Your task to perform on an android device: set an alarm Image 0: 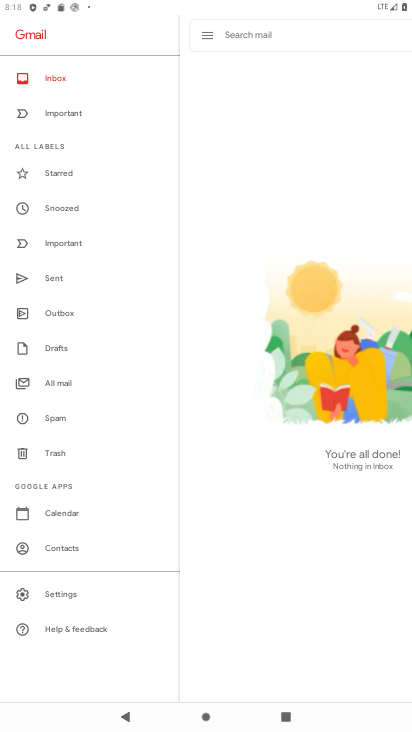
Step 0: press home button
Your task to perform on an android device: set an alarm Image 1: 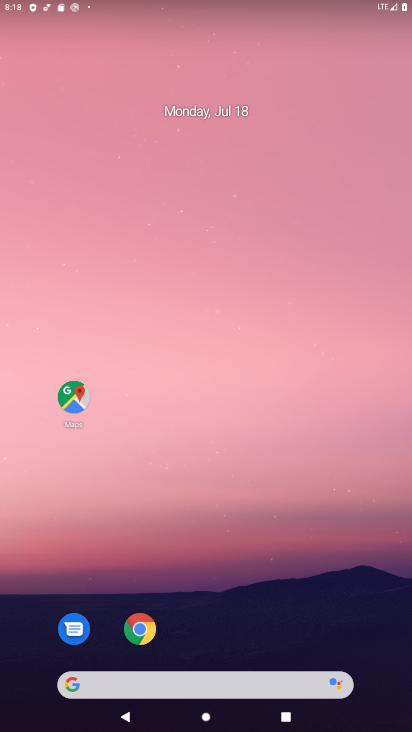
Step 1: drag from (195, 601) to (145, 16)
Your task to perform on an android device: set an alarm Image 2: 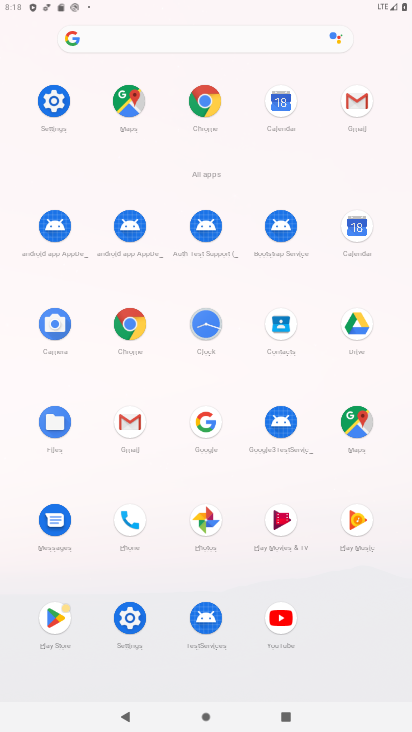
Step 2: click (191, 343)
Your task to perform on an android device: set an alarm Image 3: 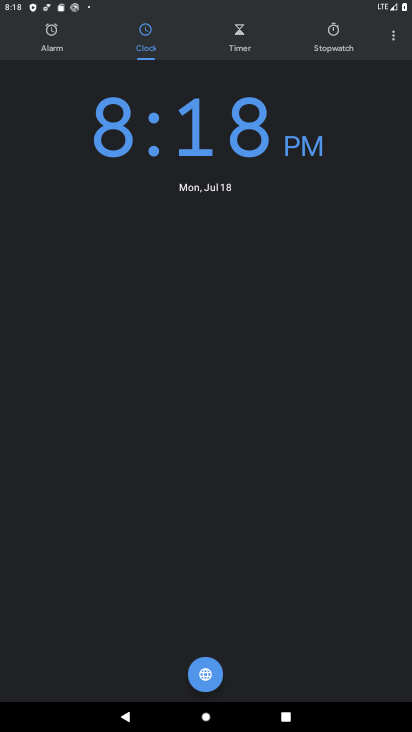
Step 3: click (44, 39)
Your task to perform on an android device: set an alarm Image 4: 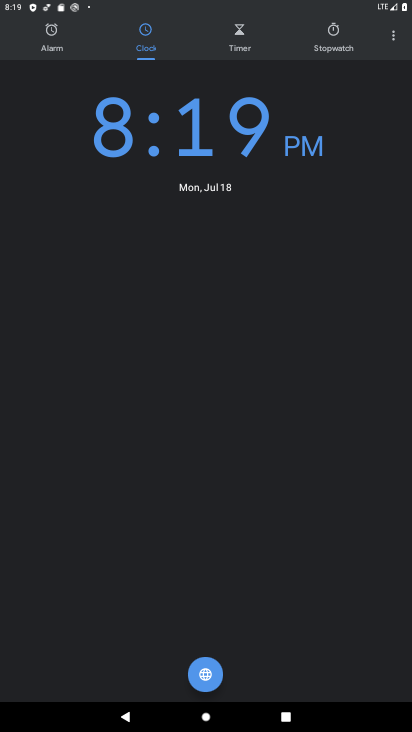
Step 4: click (55, 42)
Your task to perform on an android device: set an alarm Image 5: 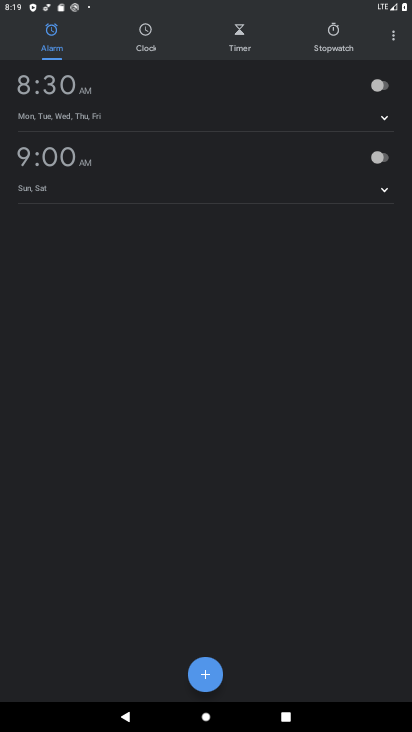
Step 5: click (367, 95)
Your task to perform on an android device: set an alarm Image 6: 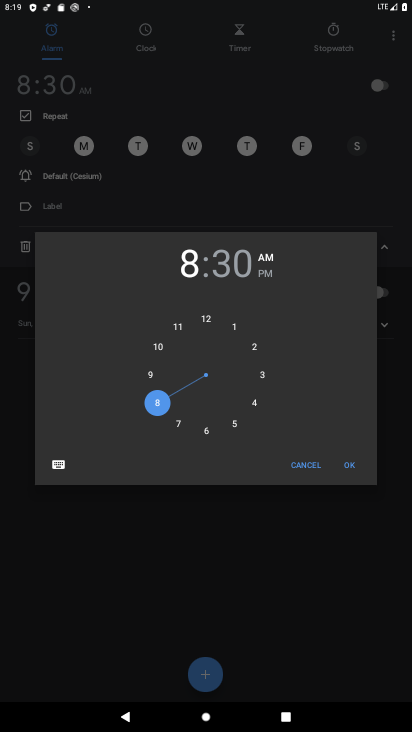
Step 6: click (162, 345)
Your task to perform on an android device: set an alarm Image 7: 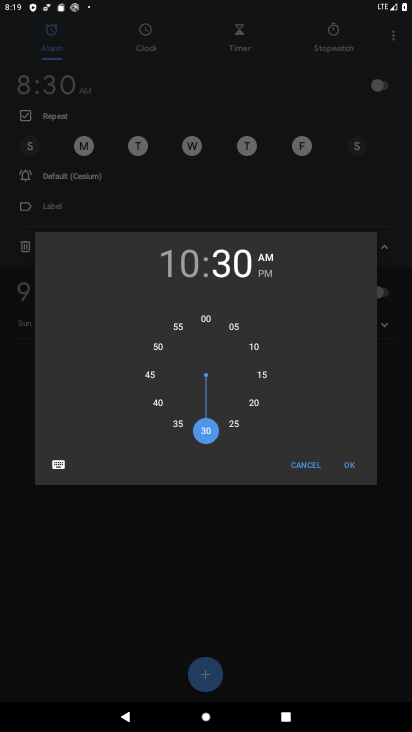
Step 7: click (255, 379)
Your task to perform on an android device: set an alarm Image 8: 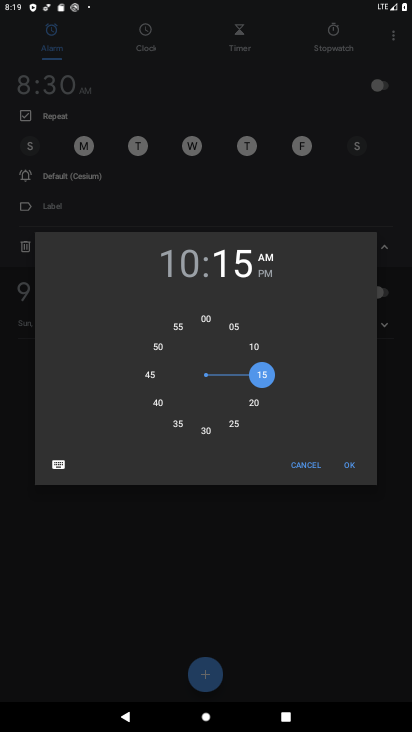
Step 8: click (349, 468)
Your task to perform on an android device: set an alarm Image 9: 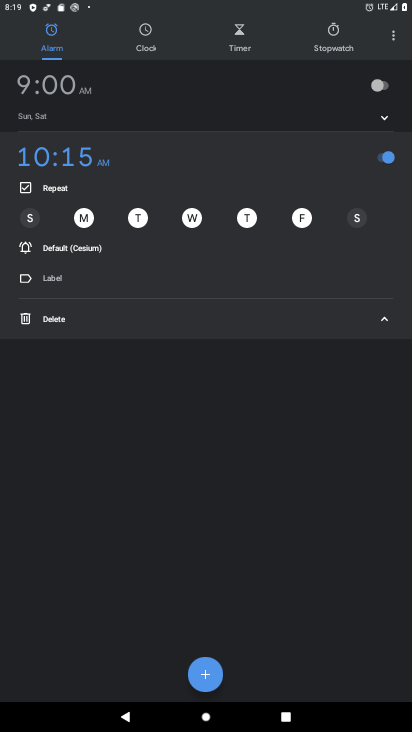
Step 9: task complete